Your task to perform on an android device: Open Yahoo.com Image 0: 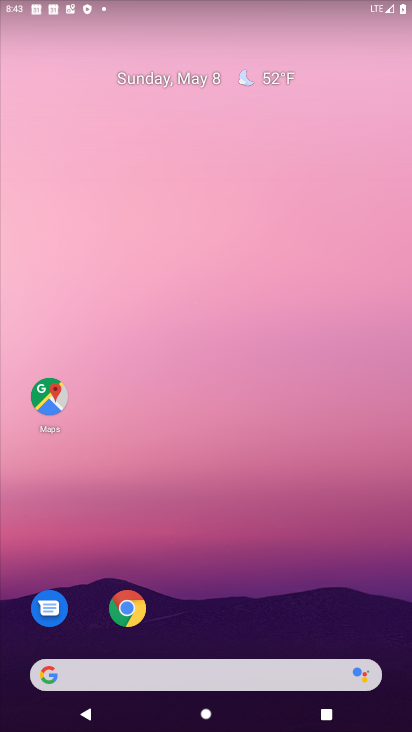
Step 0: drag from (271, 561) to (212, 27)
Your task to perform on an android device: Open Yahoo.com Image 1: 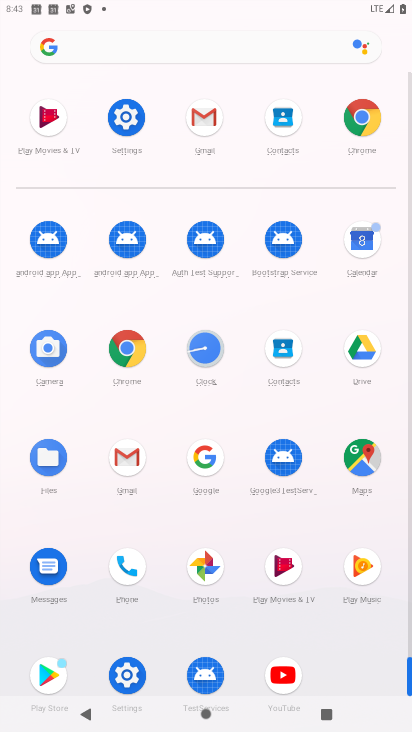
Step 1: click (360, 115)
Your task to perform on an android device: Open Yahoo.com Image 2: 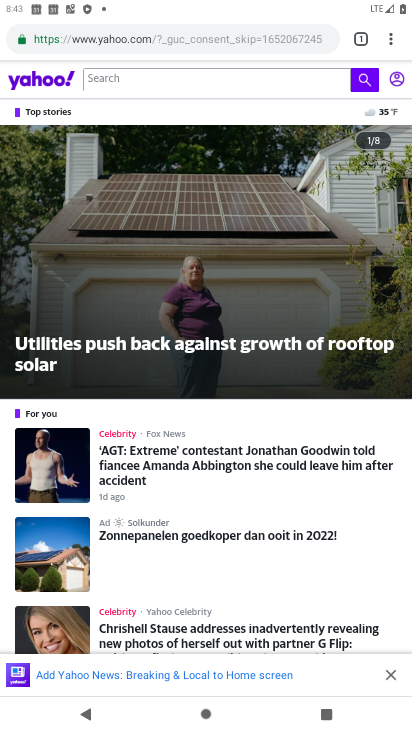
Step 2: task complete